Your task to perform on an android device: Go to Maps Image 0: 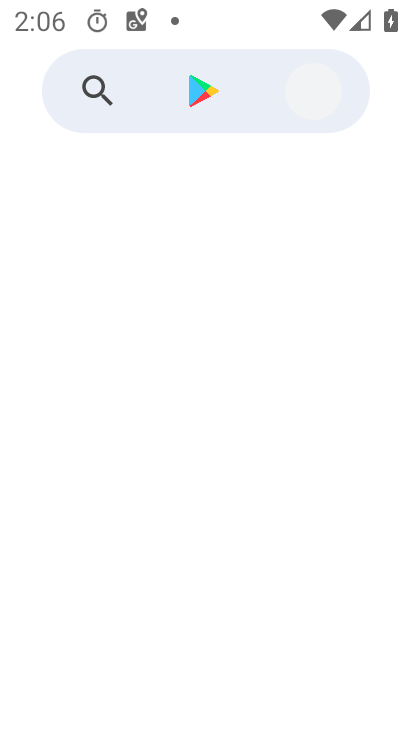
Step 0: press home button
Your task to perform on an android device: Go to Maps Image 1: 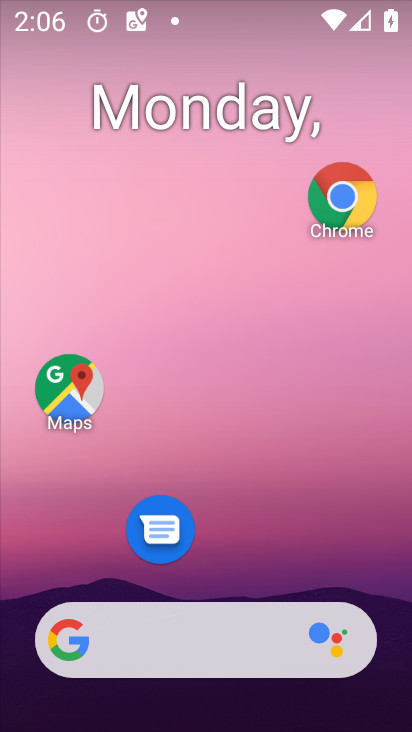
Step 1: drag from (208, 583) to (134, 25)
Your task to perform on an android device: Go to Maps Image 2: 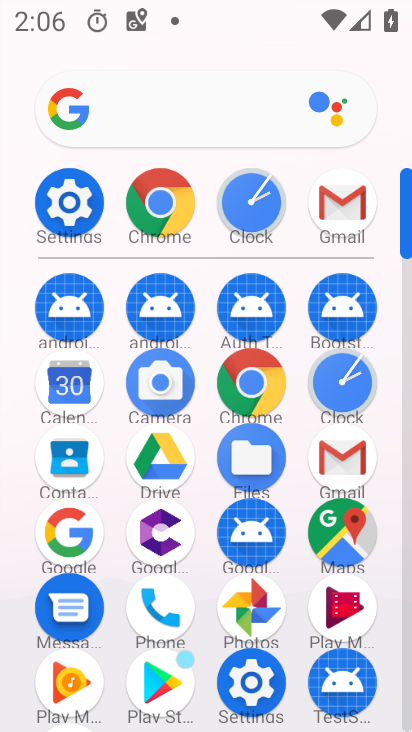
Step 2: click (334, 531)
Your task to perform on an android device: Go to Maps Image 3: 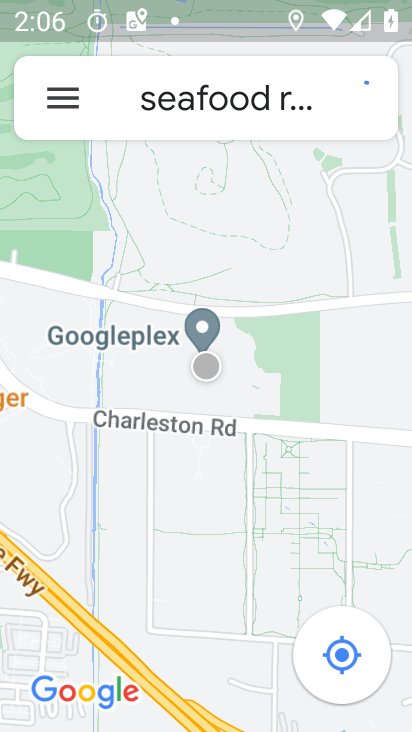
Step 3: task complete